Your task to perform on an android device: Add "logitech g pro" to the cart on target Image 0: 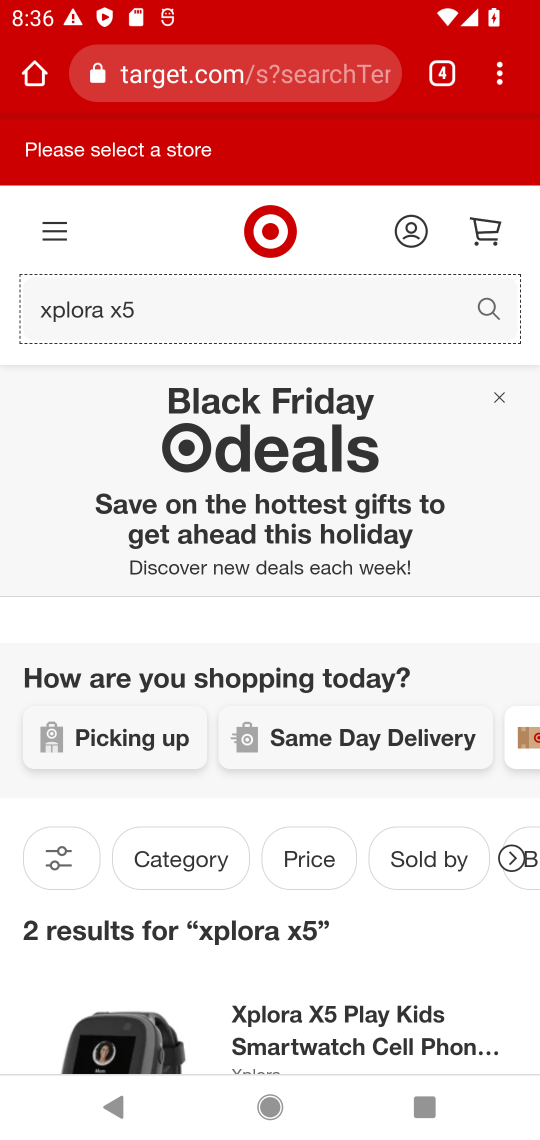
Step 0: click (207, 288)
Your task to perform on an android device: Add "logitech g pro" to the cart on target Image 1: 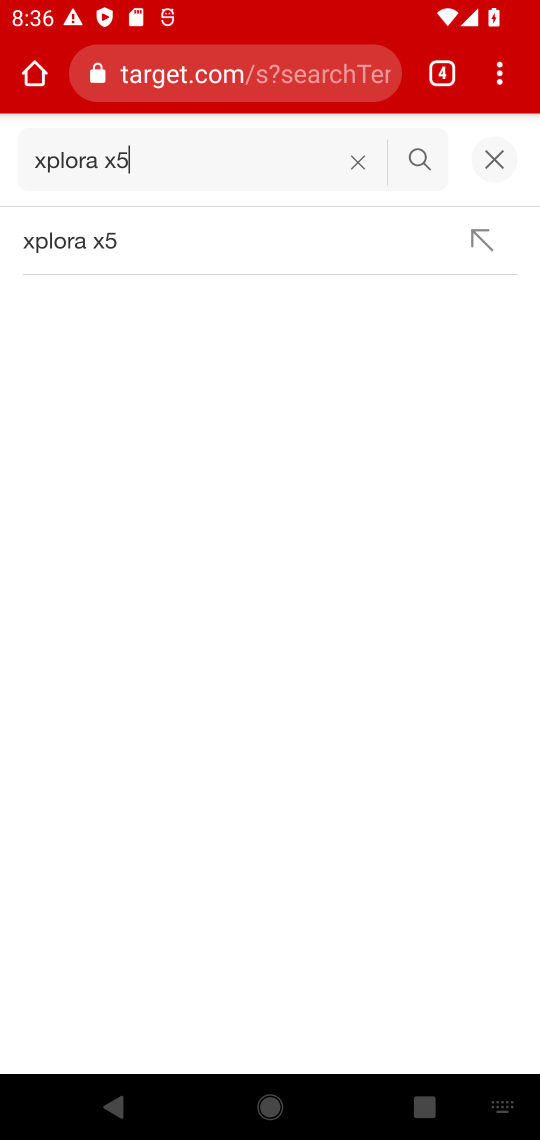
Step 1: click (378, 162)
Your task to perform on an android device: Add "logitech g pro" to the cart on target Image 2: 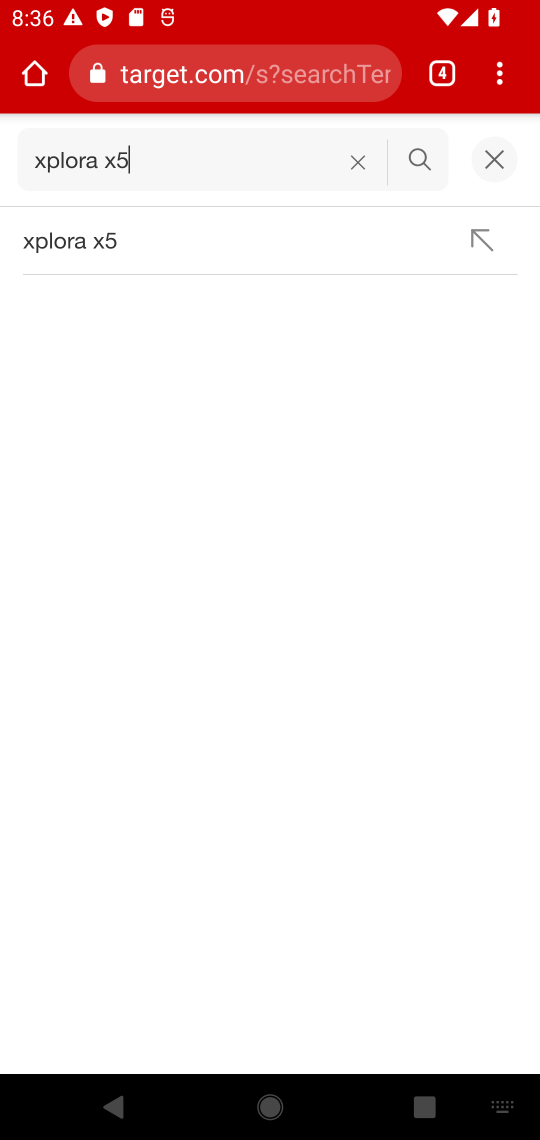
Step 2: click (364, 162)
Your task to perform on an android device: Add "logitech g pro" to the cart on target Image 3: 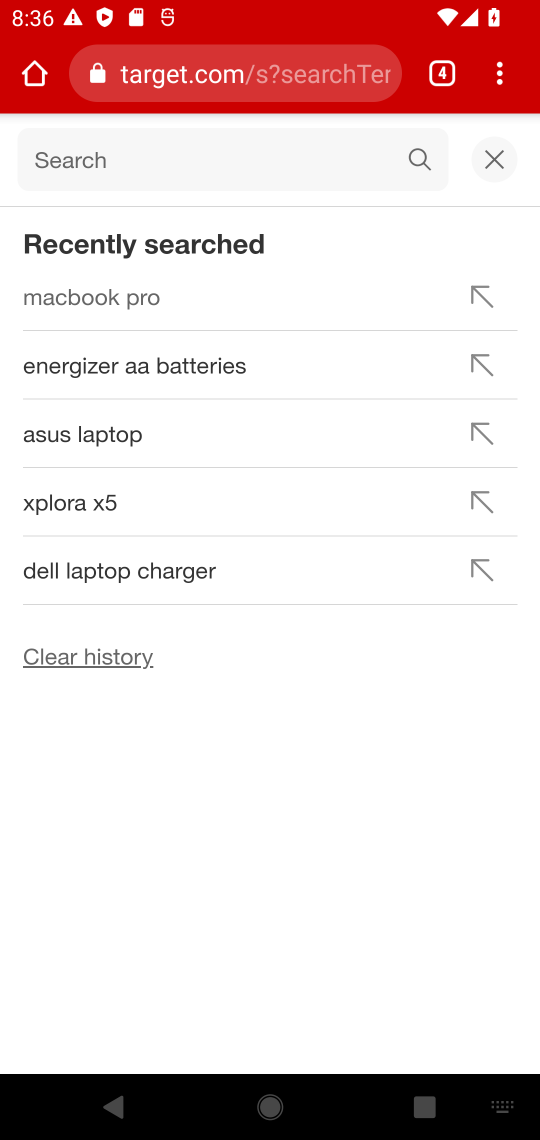
Step 3: click (190, 148)
Your task to perform on an android device: Add "logitech g pro" to the cart on target Image 4: 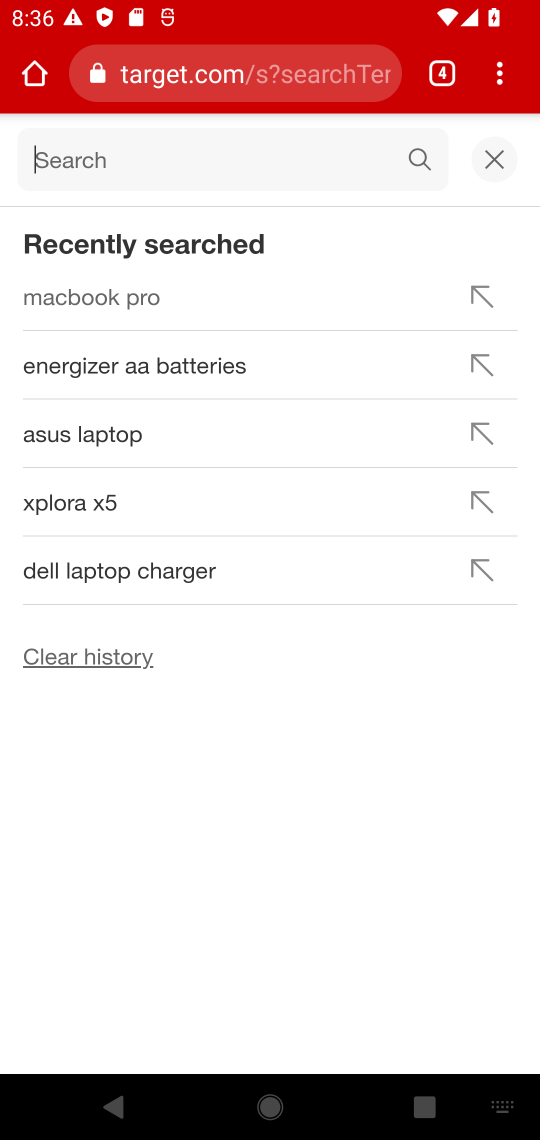
Step 4: type "logitech g pro"  "
Your task to perform on an android device: Add "logitech g pro" to the cart on target Image 5: 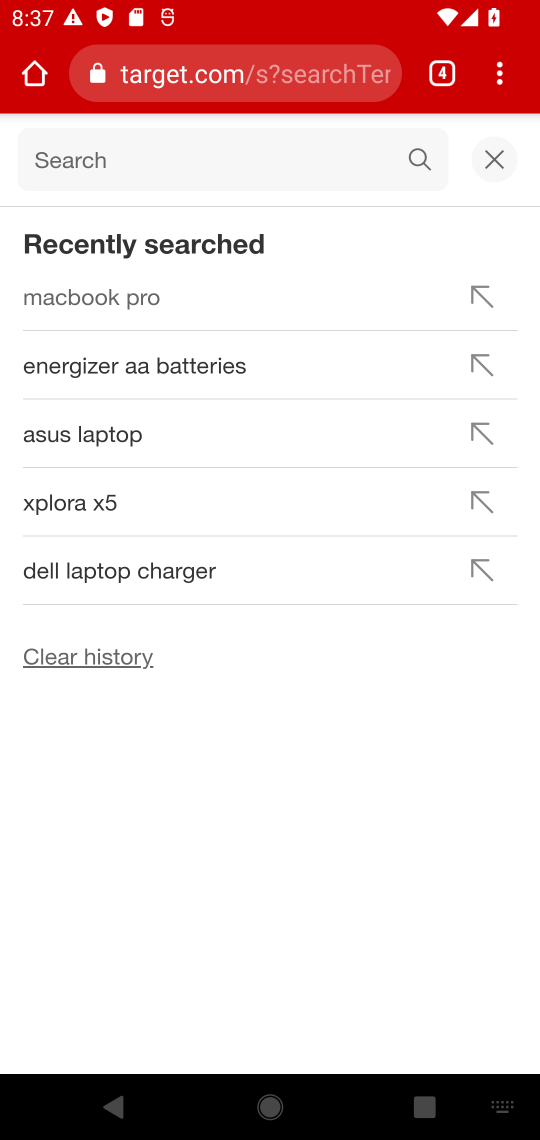
Step 5: click (306, 135)
Your task to perform on an android device: Add "logitech g pro" to the cart on target Image 6: 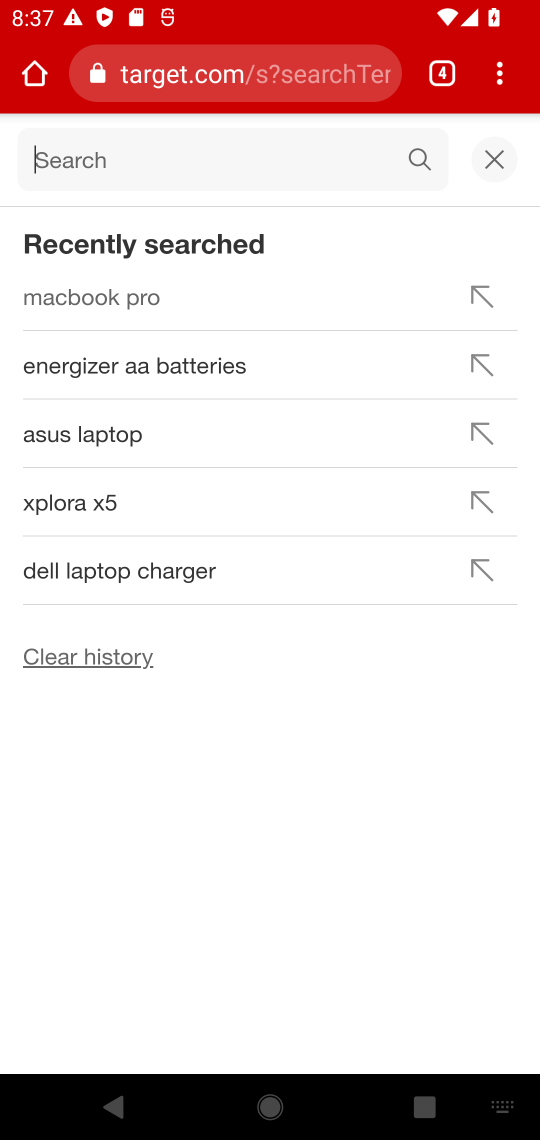
Step 6: type "logitech g pro "
Your task to perform on an android device: Add "logitech g pro" to the cart on target Image 7: 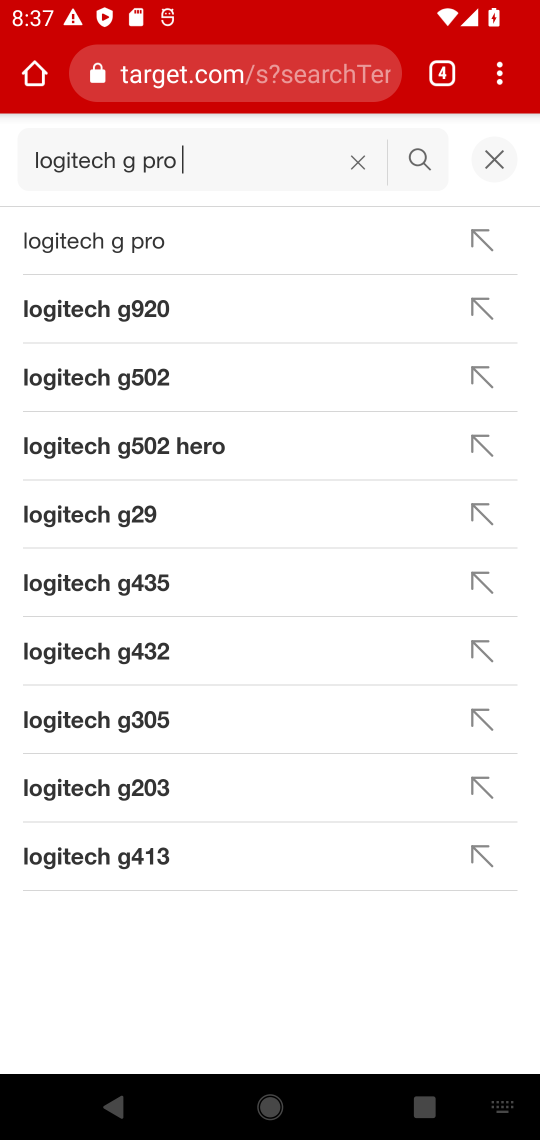
Step 7: click (113, 236)
Your task to perform on an android device: Add "logitech g pro" to the cart on target Image 8: 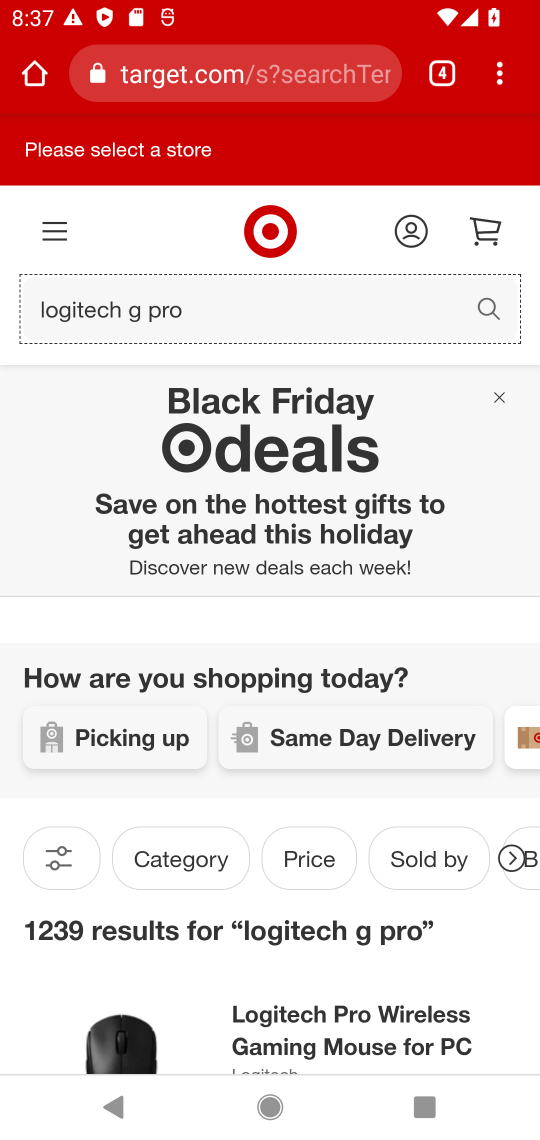
Step 8: drag from (312, 869) to (397, 282)
Your task to perform on an android device: Add "logitech g pro" to the cart on target Image 9: 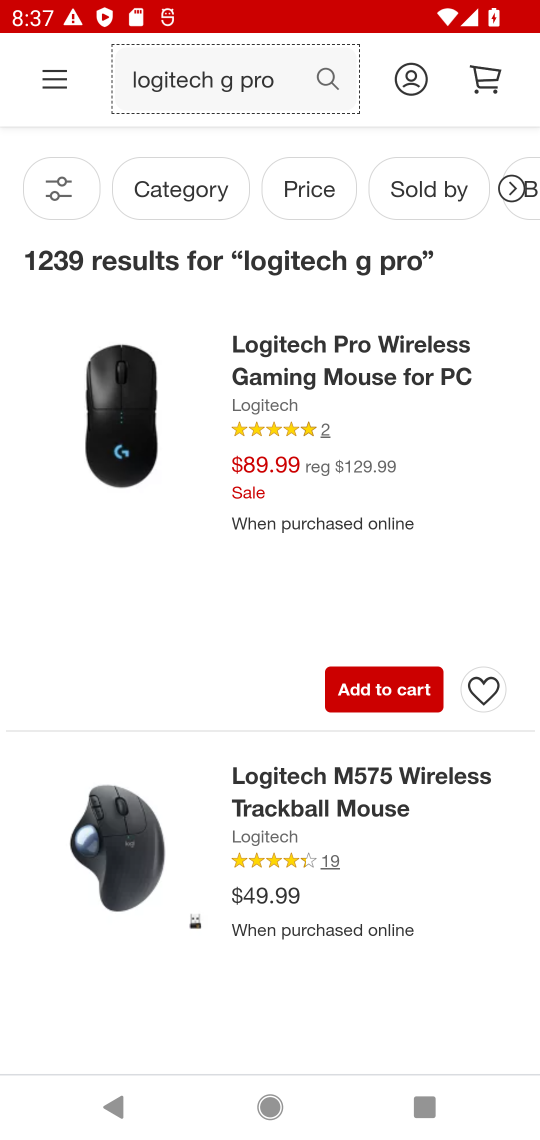
Step 9: click (378, 684)
Your task to perform on an android device: Add "logitech g pro" to the cart on target Image 10: 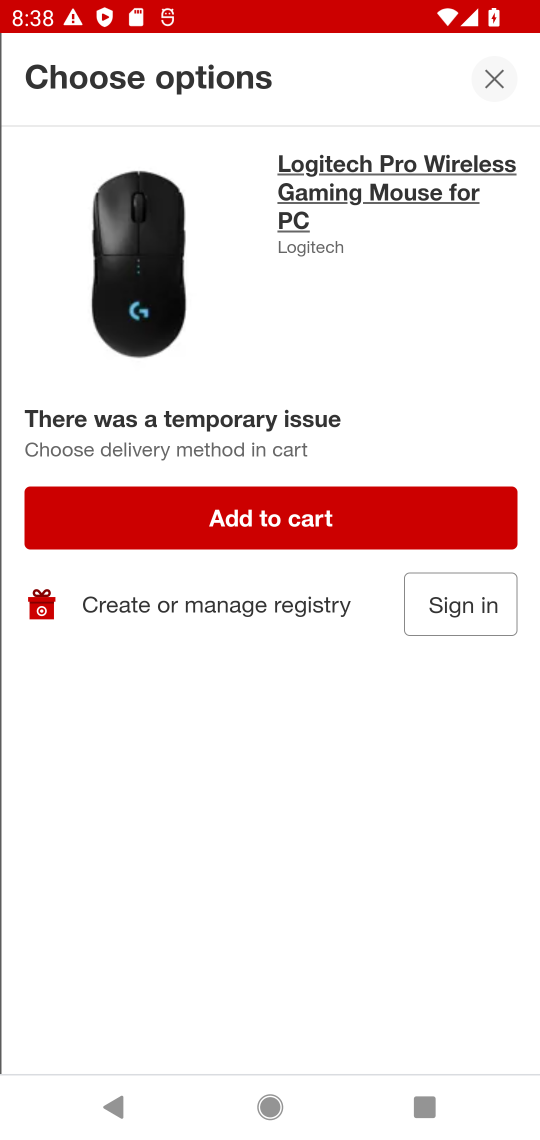
Step 10: click (343, 518)
Your task to perform on an android device: Add "logitech g pro" to the cart on target Image 11: 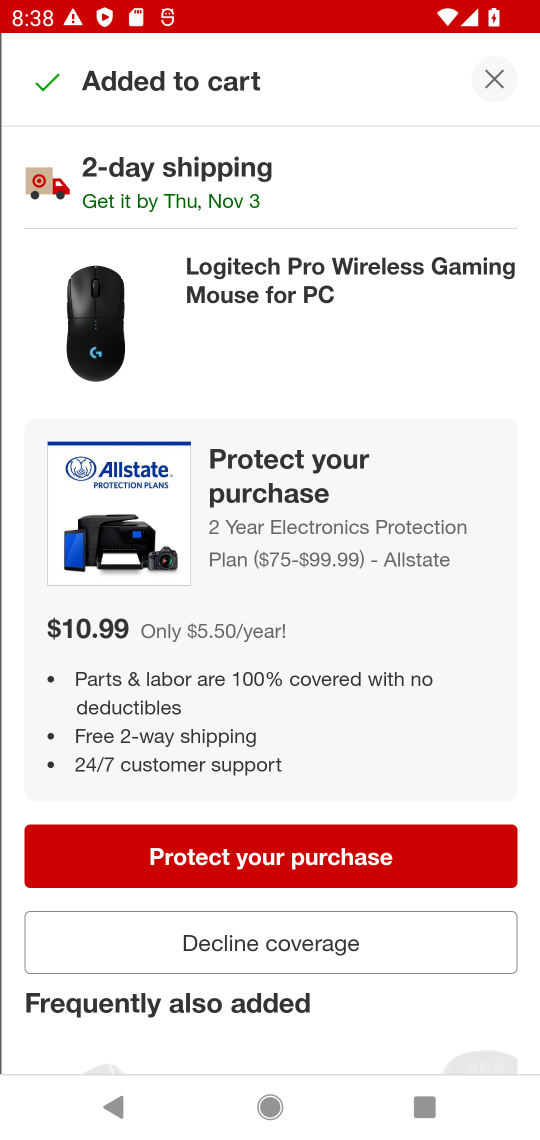
Step 11: task complete